Your task to perform on an android device: Go to network settings Image 0: 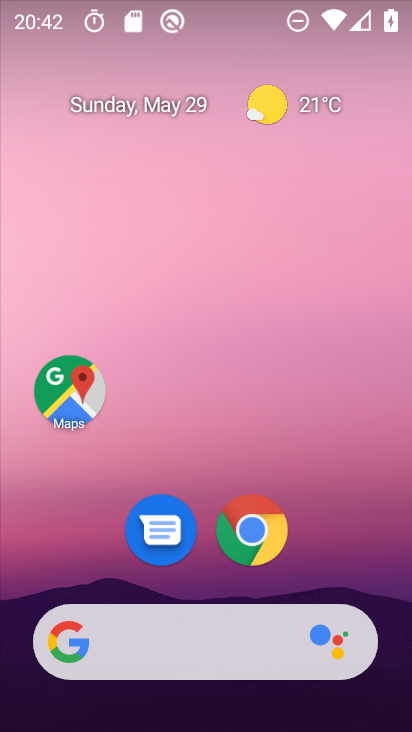
Step 0: drag from (192, 681) to (250, 232)
Your task to perform on an android device: Go to network settings Image 1: 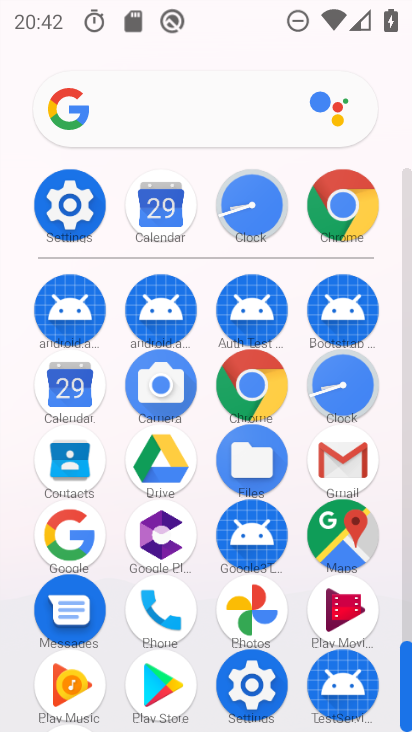
Step 1: click (70, 213)
Your task to perform on an android device: Go to network settings Image 2: 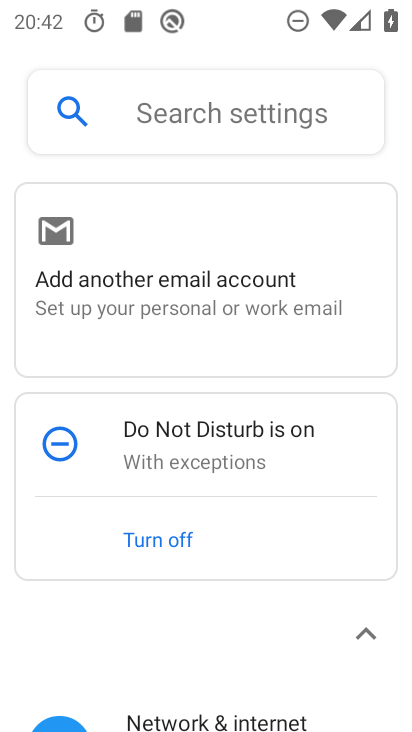
Step 2: click (188, 706)
Your task to perform on an android device: Go to network settings Image 3: 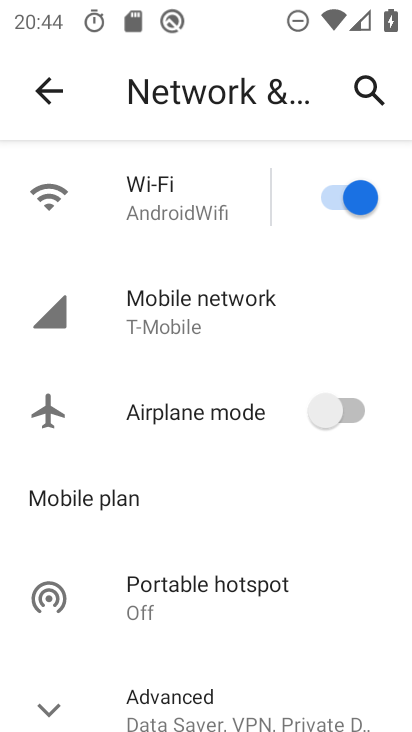
Step 3: task complete